Your task to perform on an android device: Search for pizza restaurants on Maps Image 0: 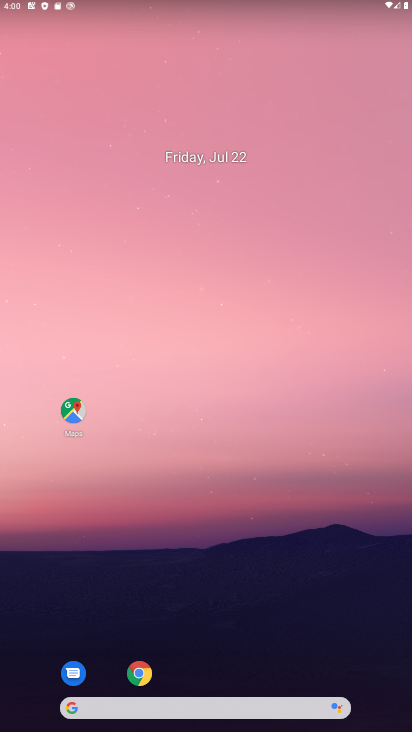
Step 0: press home button
Your task to perform on an android device: Search for pizza restaurants on Maps Image 1: 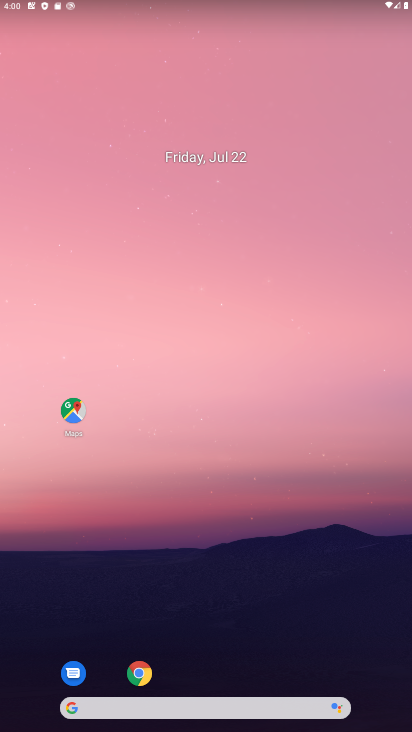
Step 1: click (72, 404)
Your task to perform on an android device: Search for pizza restaurants on Maps Image 2: 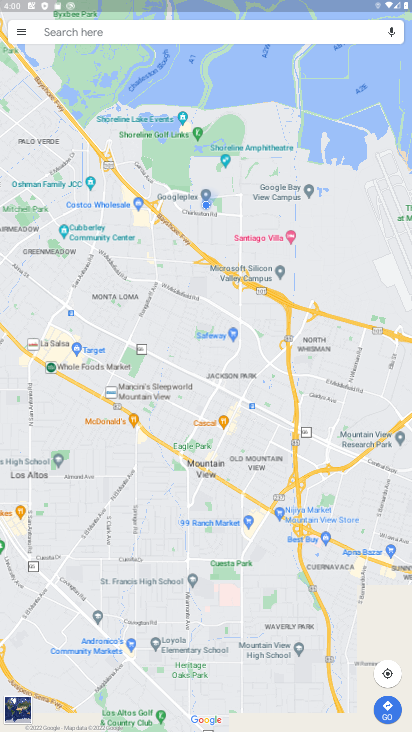
Step 2: click (100, 29)
Your task to perform on an android device: Search for pizza restaurants on Maps Image 3: 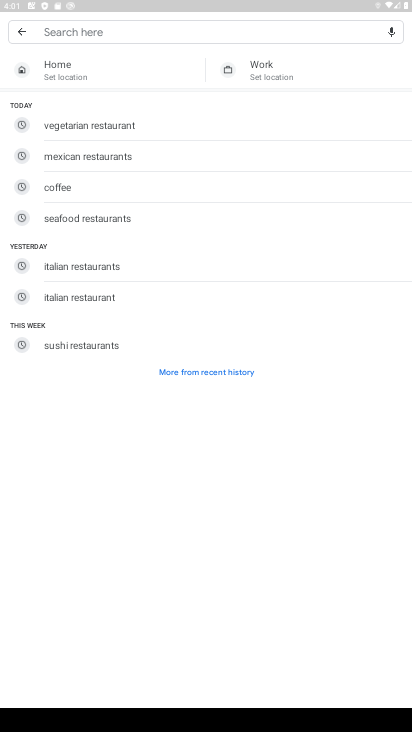
Step 3: type "pizza restaurant"
Your task to perform on an android device: Search for pizza restaurants on Maps Image 4: 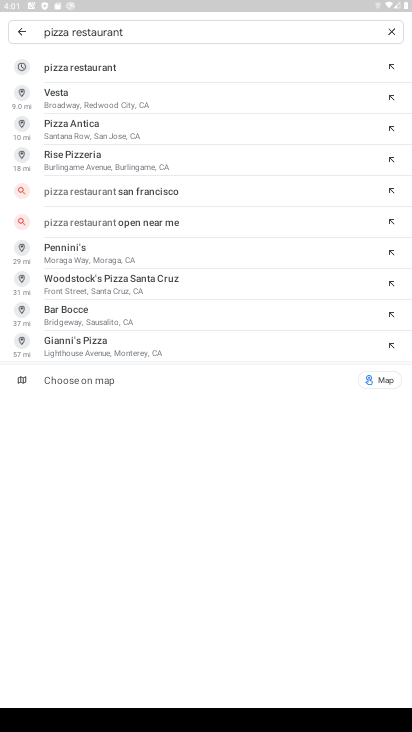
Step 4: click (121, 60)
Your task to perform on an android device: Search for pizza restaurants on Maps Image 5: 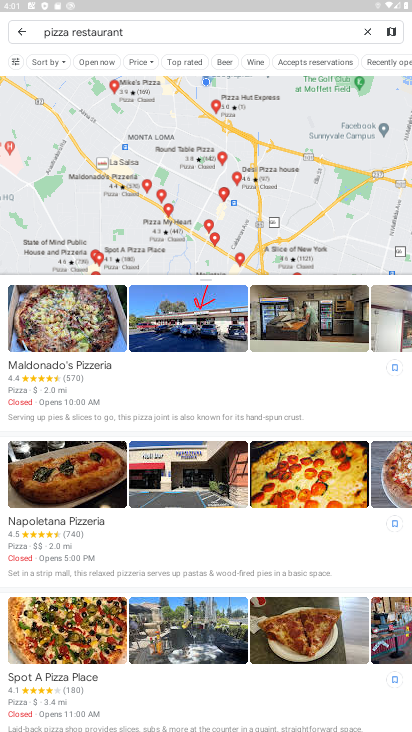
Step 5: task complete